Your task to perform on an android device: toggle wifi Image 0: 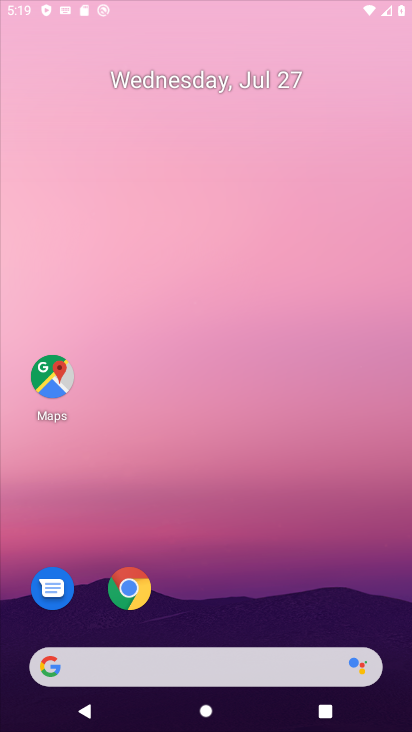
Step 0: press home button
Your task to perform on an android device: toggle wifi Image 1: 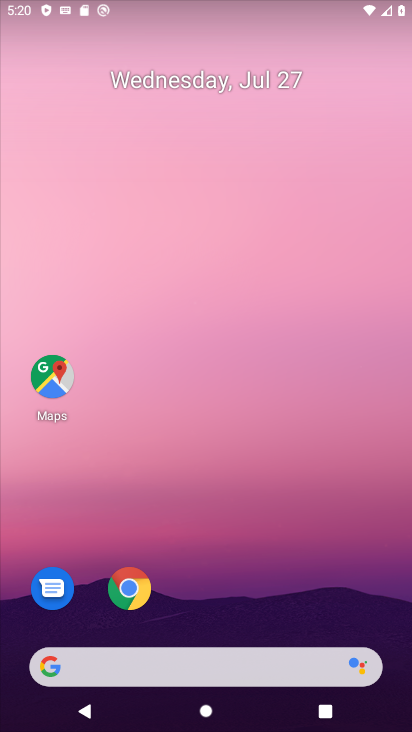
Step 1: drag from (266, 669) to (320, 49)
Your task to perform on an android device: toggle wifi Image 2: 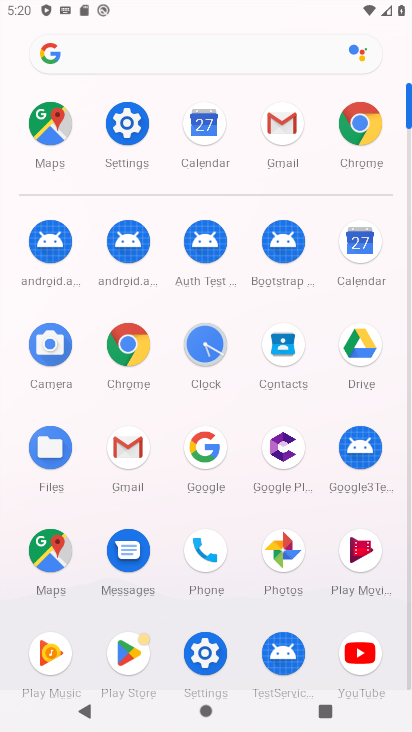
Step 2: click (124, 123)
Your task to perform on an android device: toggle wifi Image 3: 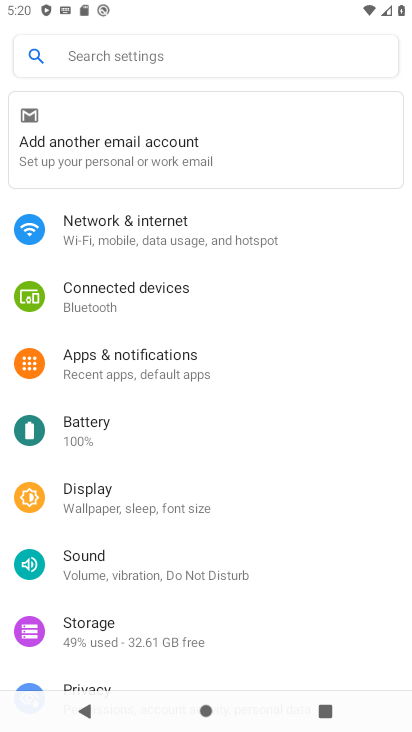
Step 3: click (121, 231)
Your task to perform on an android device: toggle wifi Image 4: 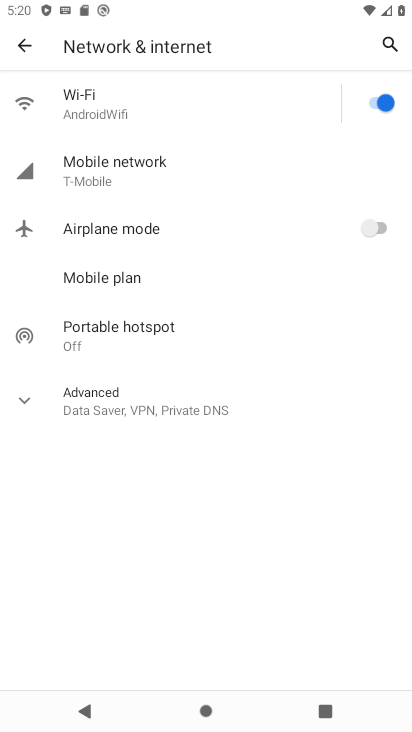
Step 4: click (382, 107)
Your task to perform on an android device: toggle wifi Image 5: 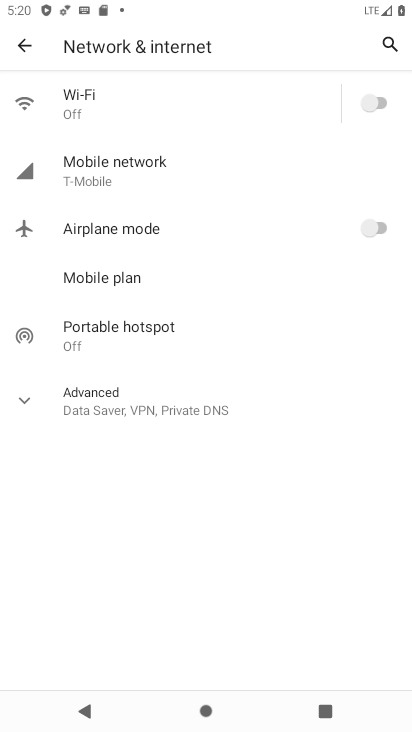
Step 5: task complete